Your task to perform on an android device: turn notification dots off Image 0: 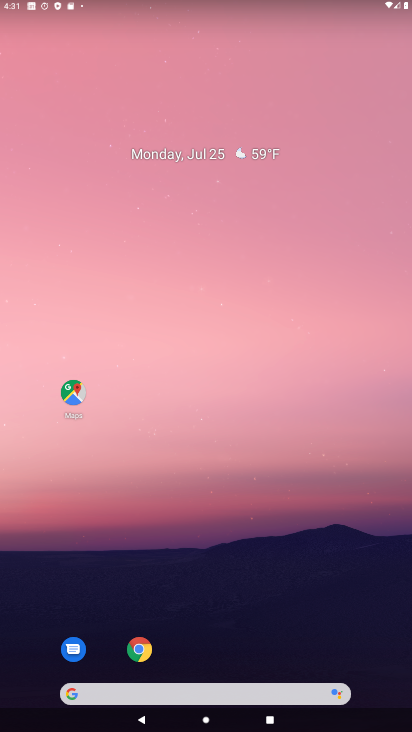
Step 0: drag from (248, 659) to (190, 123)
Your task to perform on an android device: turn notification dots off Image 1: 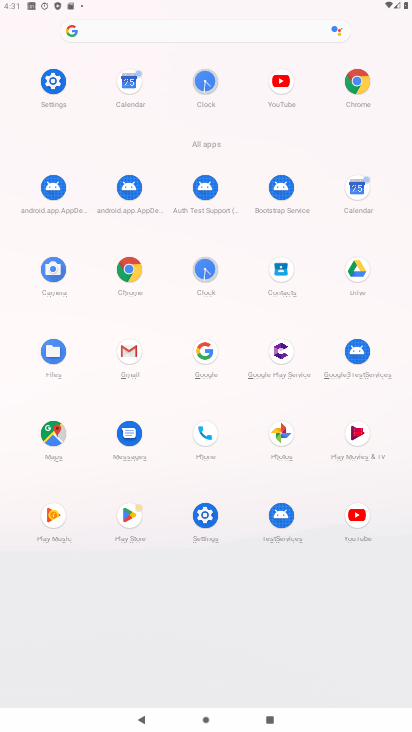
Step 1: click (48, 89)
Your task to perform on an android device: turn notification dots off Image 2: 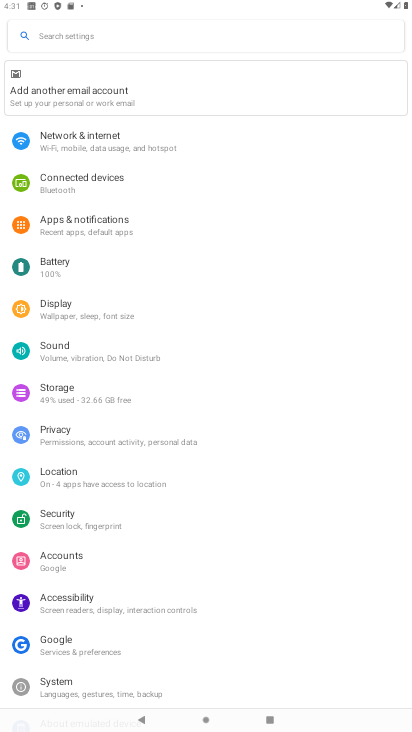
Step 2: click (103, 234)
Your task to perform on an android device: turn notification dots off Image 3: 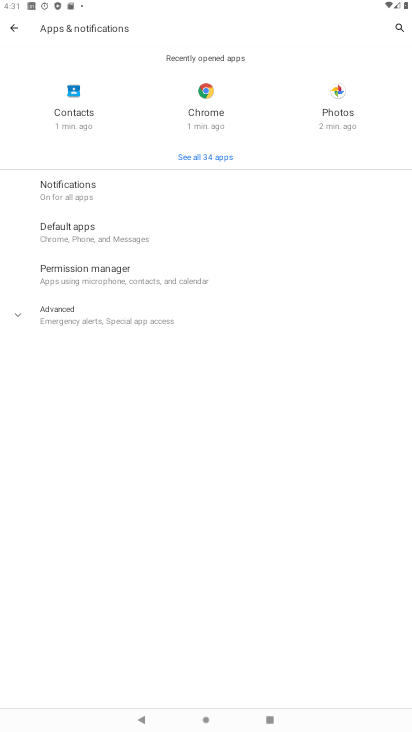
Step 3: click (120, 190)
Your task to perform on an android device: turn notification dots off Image 4: 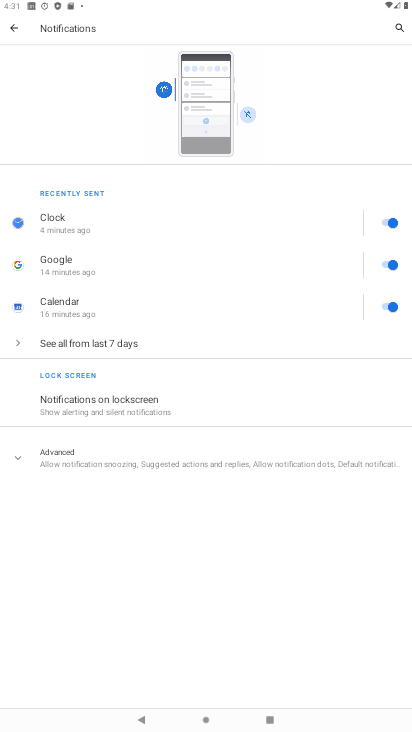
Step 4: click (162, 462)
Your task to perform on an android device: turn notification dots off Image 5: 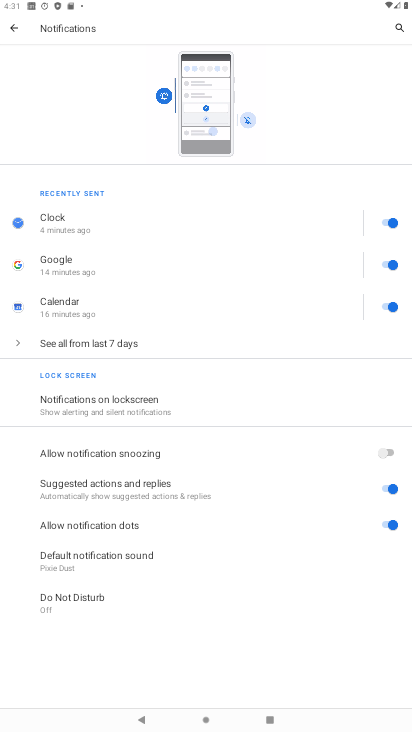
Step 5: click (384, 531)
Your task to perform on an android device: turn notification dots off Image 6: 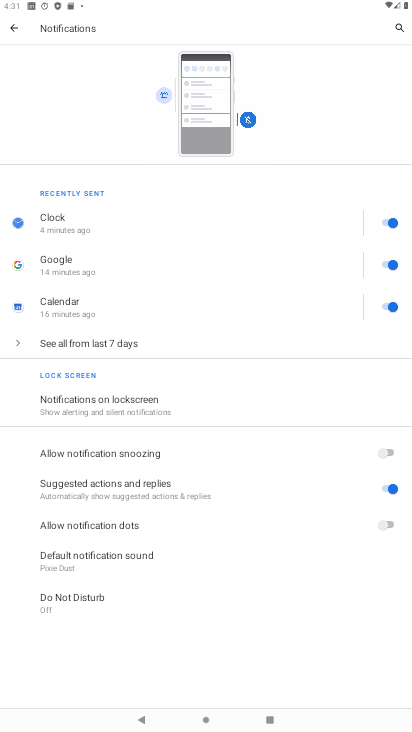
Step 6: task complete